Your task to perform on an android device: turn on priority inbox in the gmail app Image 0: 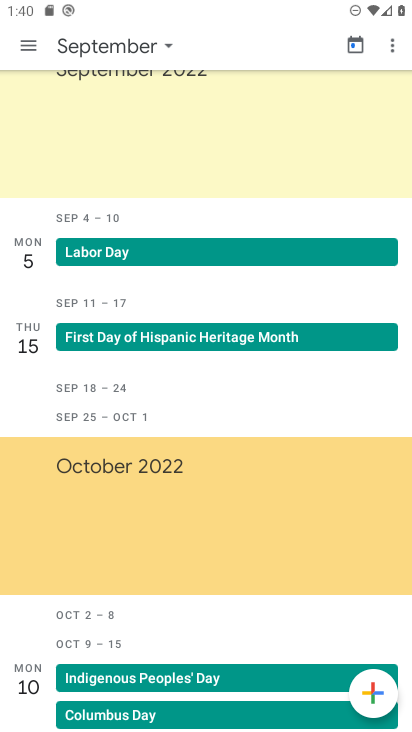
Step 0: press home button
Your task to perform on an android device: turn on priority inbox in the gmail app Image 1: 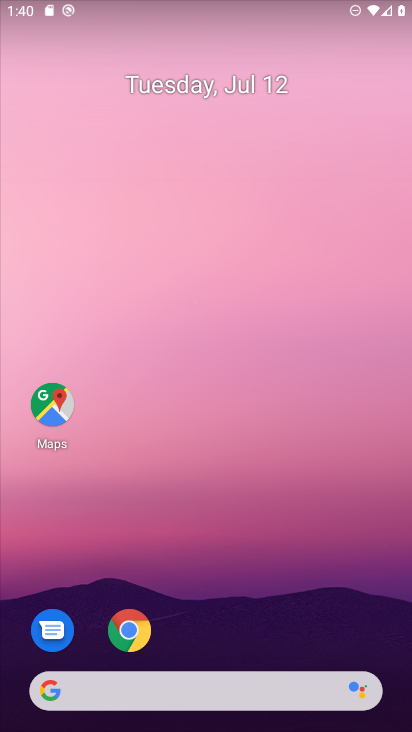
Step 1: drag from (370, 645) to (340, 124)
Your task to perform on an android device: turn on priority inbox in the gmail app Image 2: 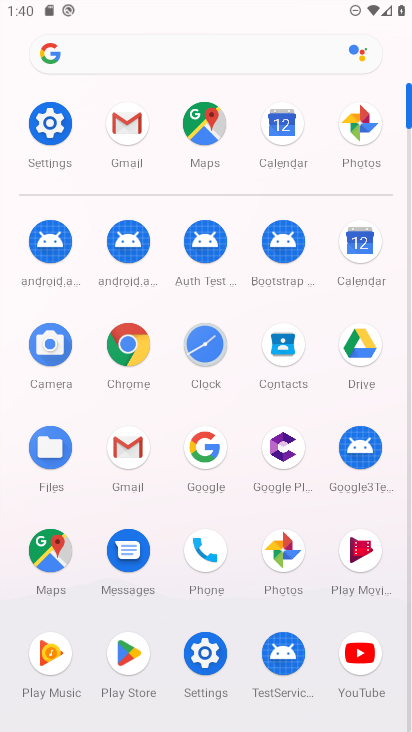
Step 2: click (124, 443)
Your task to perform on an android device: turn on priority inbox in the gmail app Image 3: 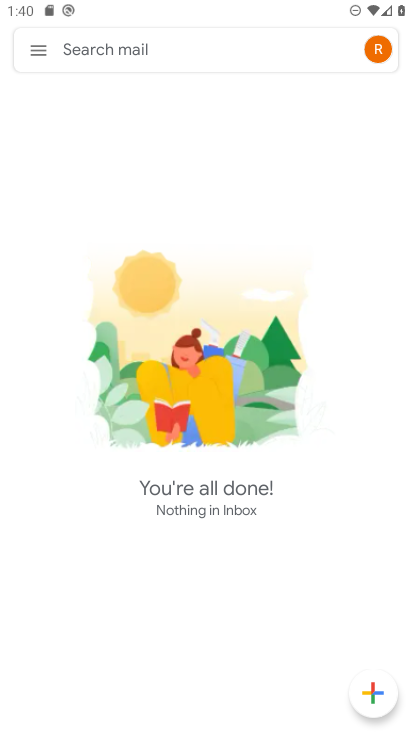
Step 3: click (27, 48)
Your task to perform on an android device: turn on priority inbox in the gmail app Image 4: 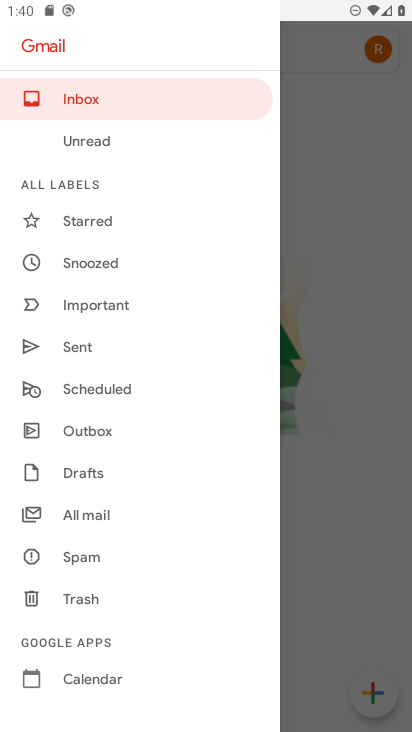
Step 4: drag from (169, 638) to (194, 62)
Your task to perform on an android device: turn on priority inbox in the gmail app Image 5: 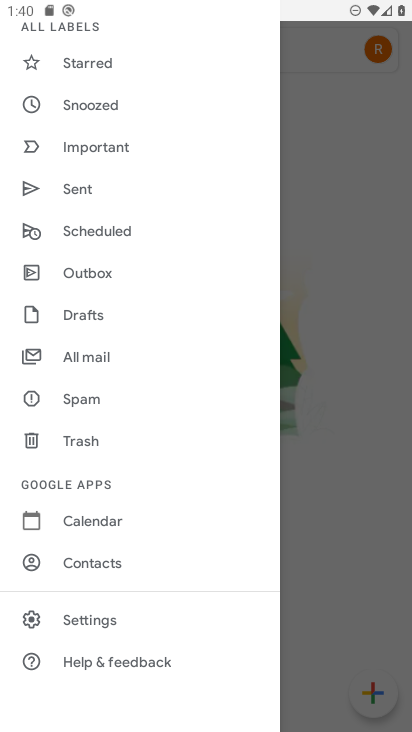
Step 5: click (86, 610)
Your task to perform on an android device: turn on priority inbox in the gmail app Image 6: 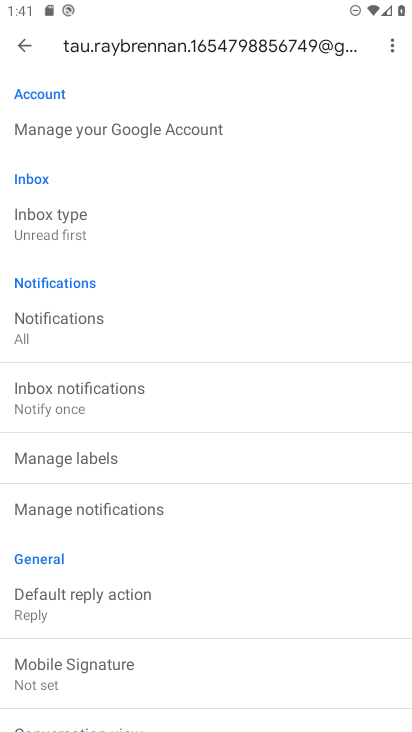
Step 6: click (40, 218)
Your task to perform on an android device: turn on priority inbox in the gmail app Image 7: 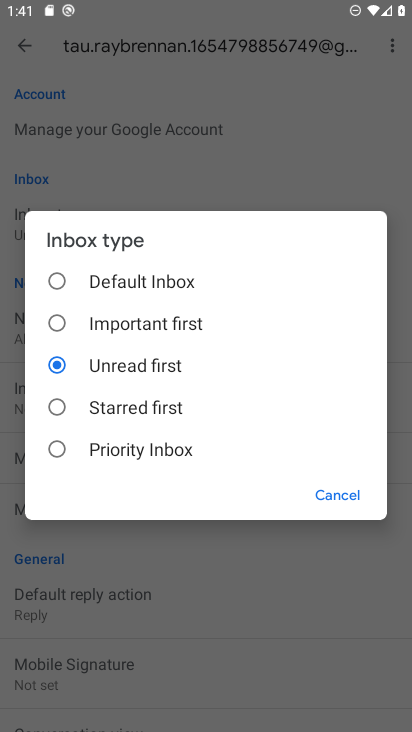
Step 7: click (58, 452)
Your task to perform on an android device: turn on priority inbox in the gmail app Image 8: 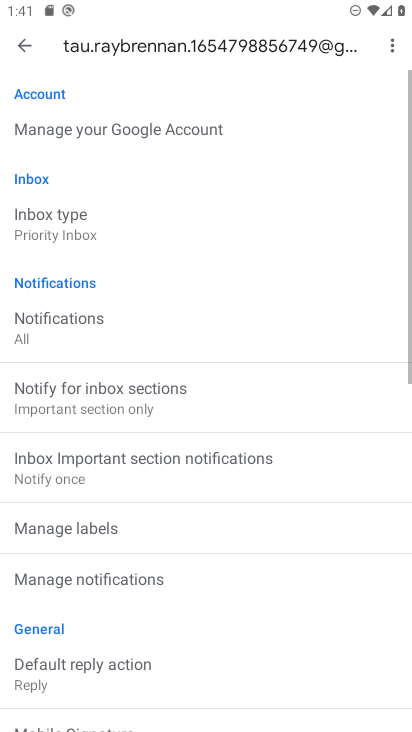
Step 8: task complete